Your task to perform on an android device: turn on wifi Image 0: 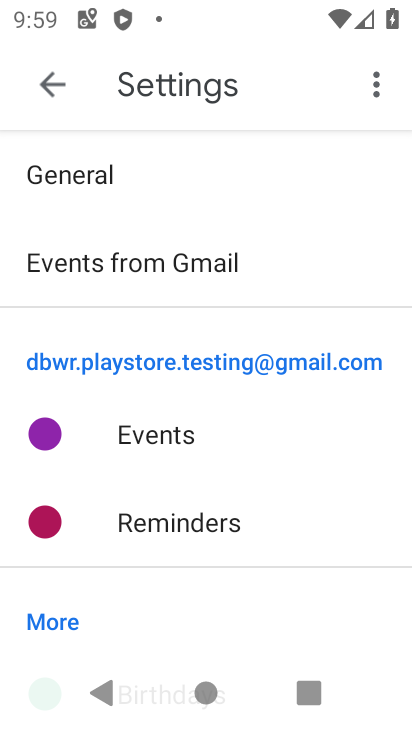
Step 0: press home button
Your task to perform on an android device: turn on wifi Image 1: 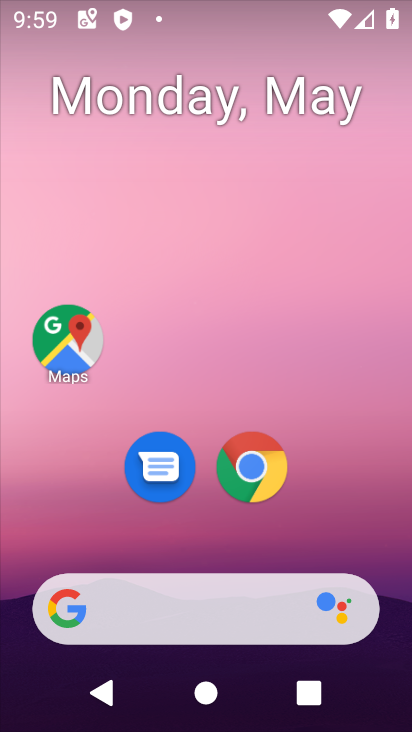
Step 1: drag from (397, 580) to (307, 29)
Your task to perform on an android device: turn on wifi Image 2: 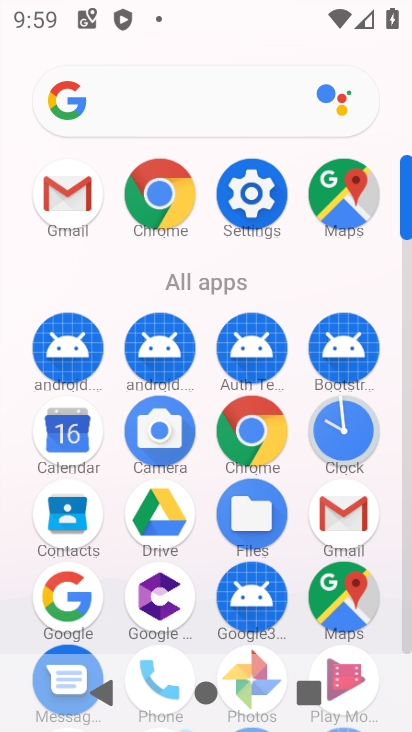
Step 2: click (409, 623)
Your task to perform on an android device: turn on wifi Image 3: 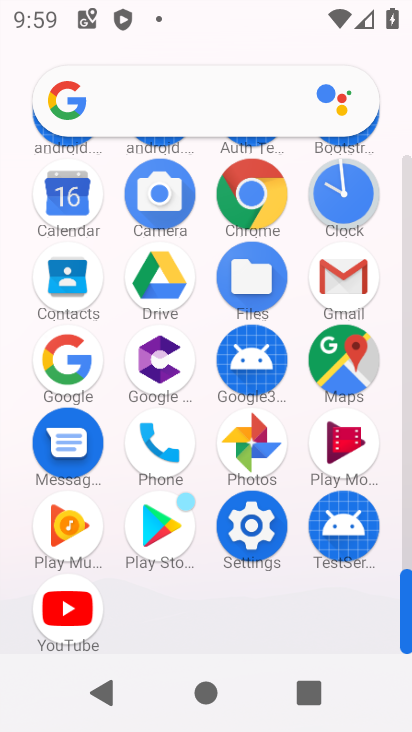
Step 3: click (250, 523)
Your task to perform on an android device: turn on wifi Image 4: 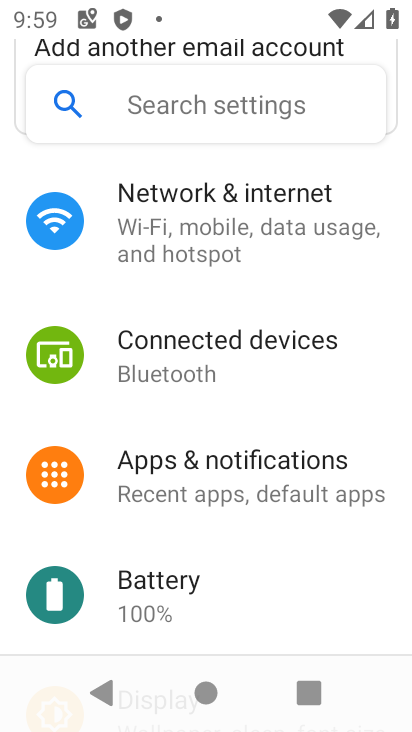
Step 4: click (247, 221)
Your task to perform on an android device: turn on wifi Image 5: 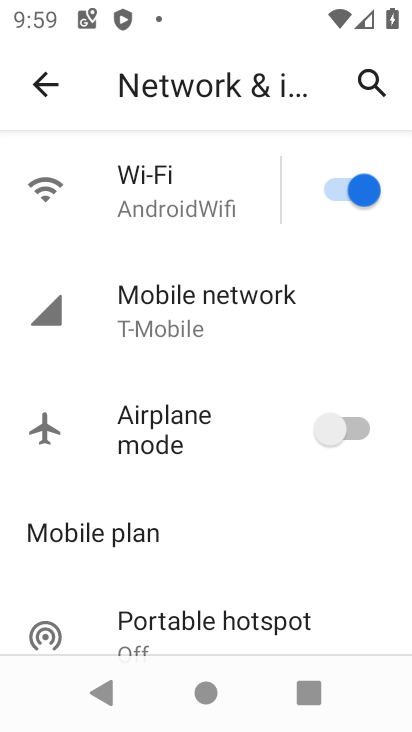
Step 5: task complete